Your task to perform on an android device: delete a single message in the gmail app Image 0: 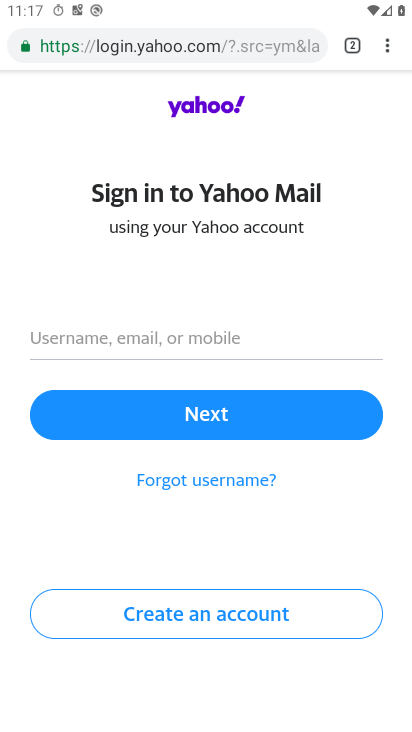
Step 0: press home button
Your task to perform on an android device: delete a single message in the gmail app Image 1: 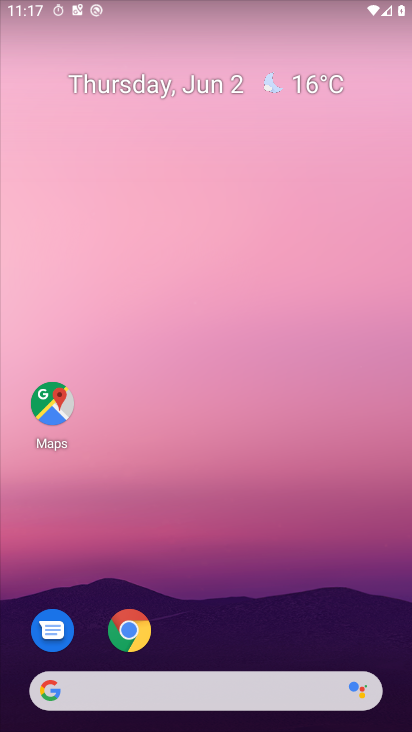
Step 1: drag from (214, 626) to (224, 235)
Your task to perform on an android device: delete a single message in the gmail app Image 2: 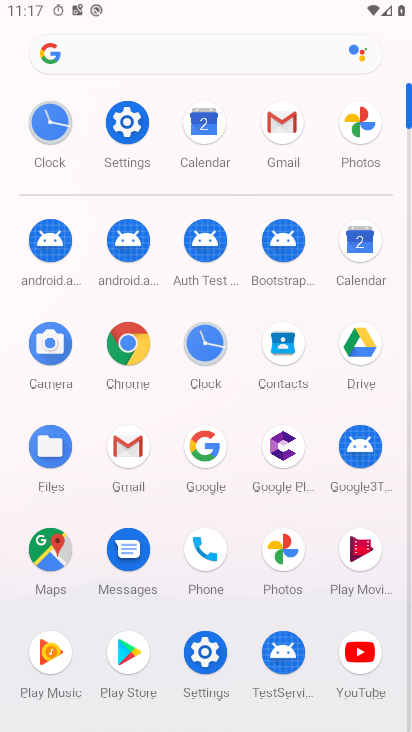
Step 2: click (132, 459)
Your task to perform on an android device: delete a single message in the gmail app Image 3: 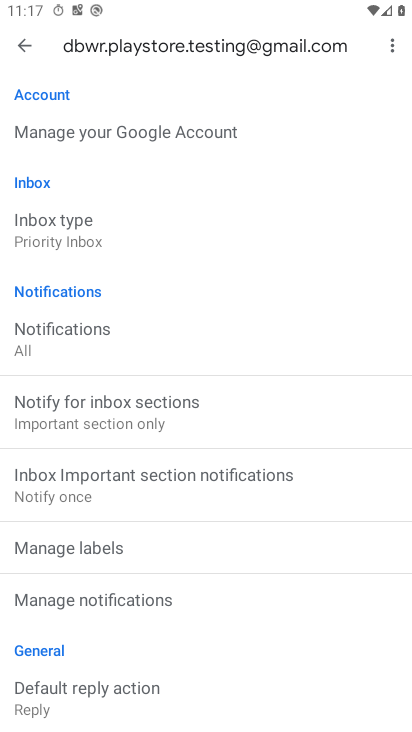
Step 3: click (25, 43)
Your task to perform on an android device: delete a single message in the gmail app Image 4: 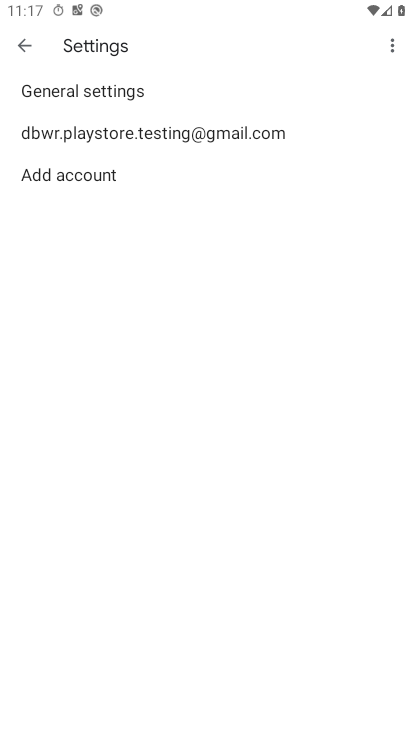
Step 4: click (38, 2)
Your task to perform on an android device: delete a single message in the gmail app Image 5: 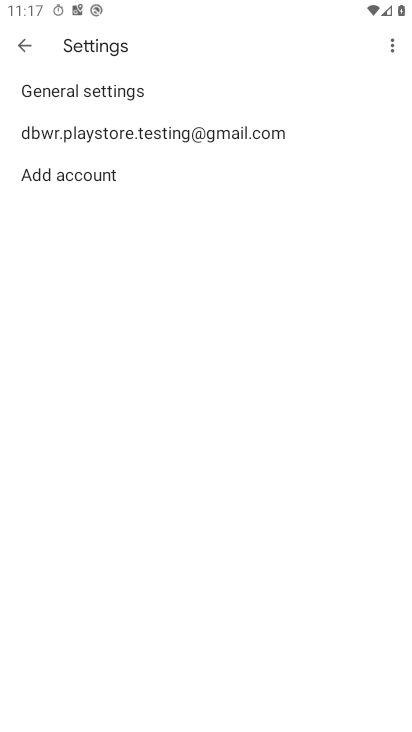
Step 5: click (21, 54)
Your task to perform on an android device: delete a single message in the gmail app Image 6: 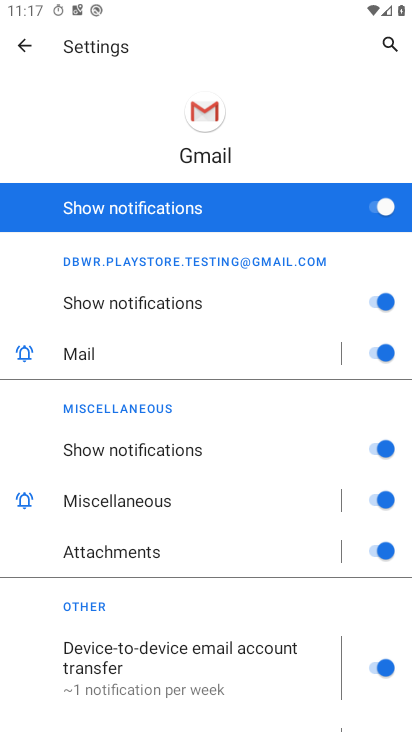
Step 6: click (25, 38)
Your task to perform on an android device: delete a single message in the gmail app Image 7: 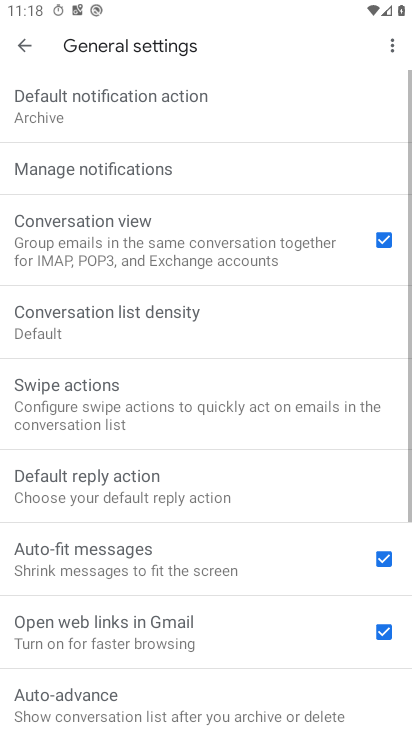
Step 7: click (36, 48)
Your task to perform on an android device: delete a single message in the gmail app Image 8: 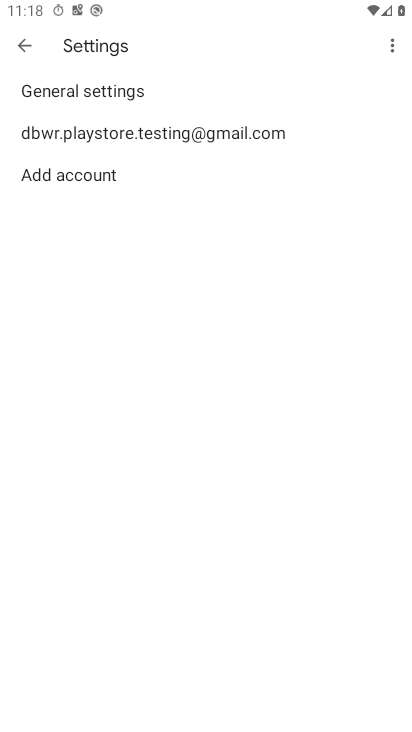
Step 8: click (37, 48)
Your task to perform on an android device: delete a single message in the gmail app Image 9: 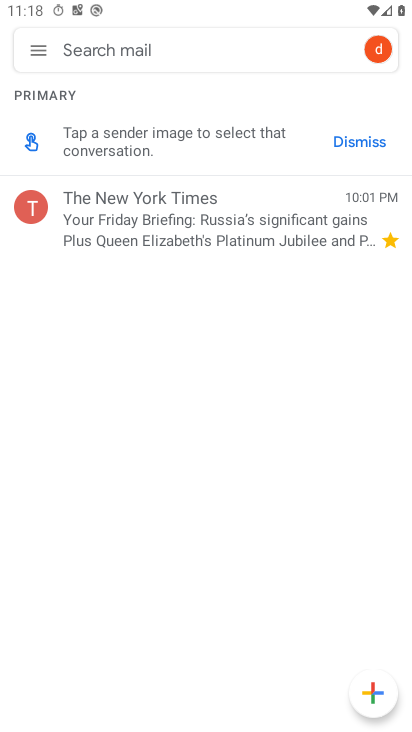
Step 9: click (39, 223)
Your task to perform on an android device: delete a single message in the gmail app Image 10: 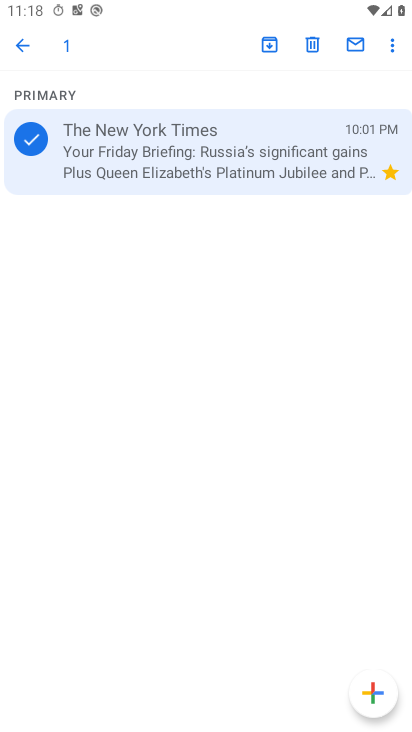
Step 10: click (313, 42)
Your task to perform on an android device: delete a single message in the gmail app Image 11: 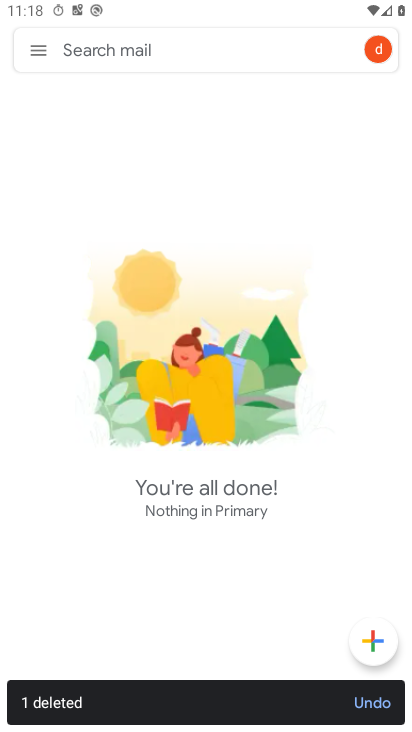
Step 11: task complete